Your task to perform on an android device: Go to Wikipedia Image 0: 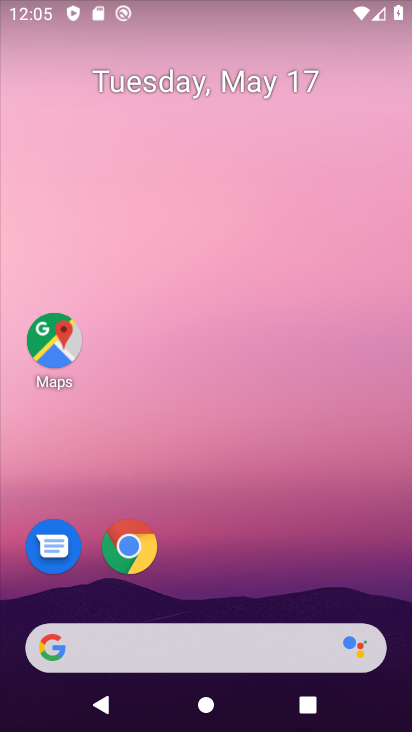
Step 0: drag from (291, 511) to (321, 115)
Your task to perform on an android device: Go to Wikipedia Image 1: 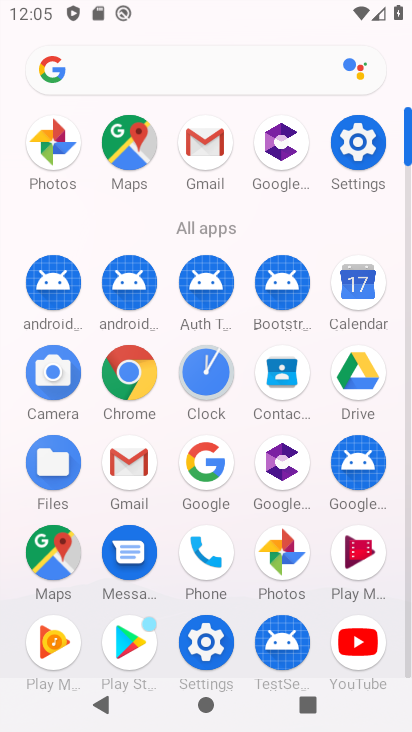
Step 1: click (141, 381)
Your task to perform on an android device: Go to Wikipedia Image 2: 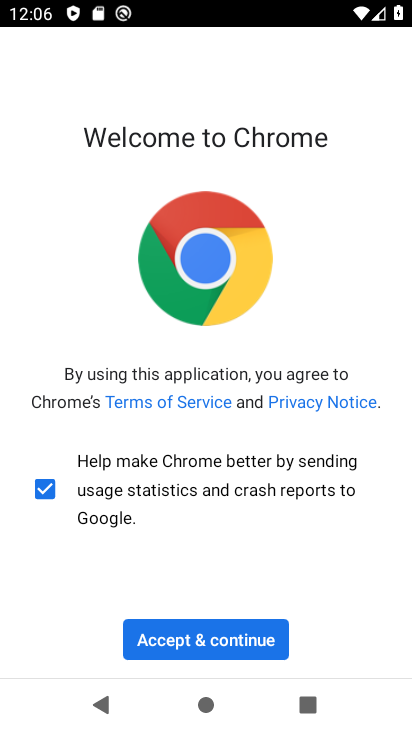
Step 2: click (199, 649)
Your task to perform on an android device: Go to Wikipedia Image 3: 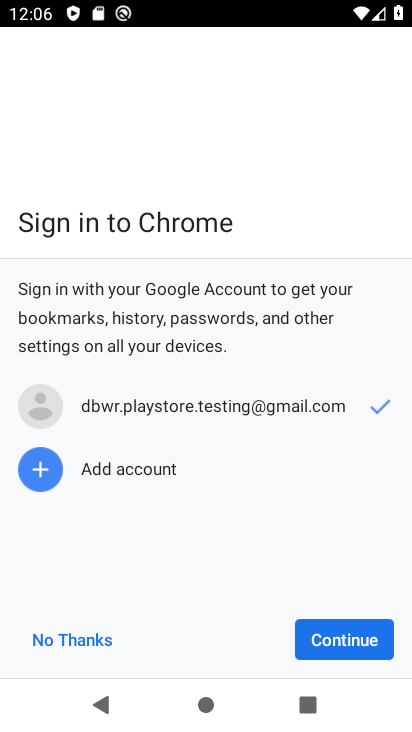
Step 3: click (83, 636)
Your task to perform on an android device: Go to Wikipedia Image 4: 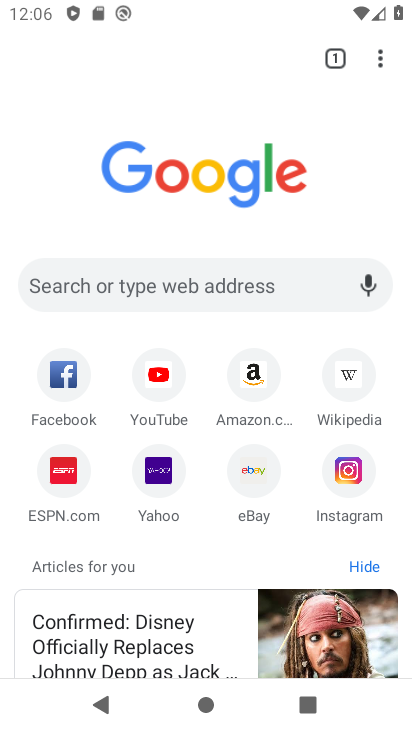
Step 4: click (356, 400)
Your task to perform on an android device: Go to Wikipedia Image 5: 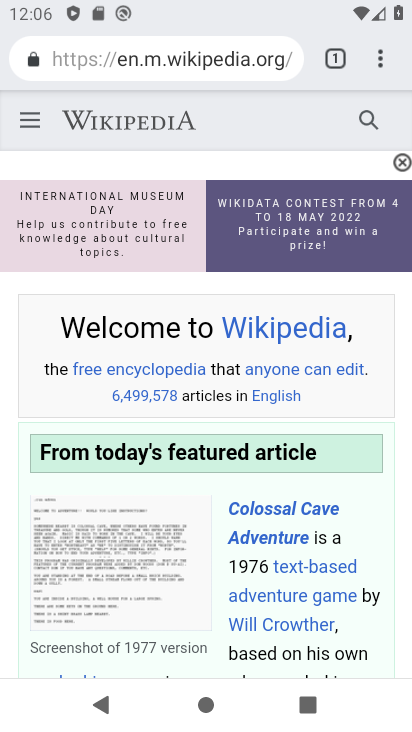
Step 5: task complete